Your task to perform on an android device: see sites visited before in the chrome app Image 0: 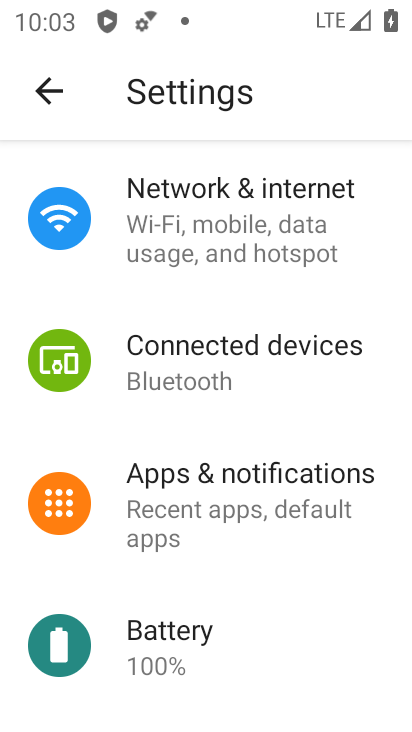
Step 0: press home button
Your task to perform on an android device: see sites visited before in the chrome app Image 1: 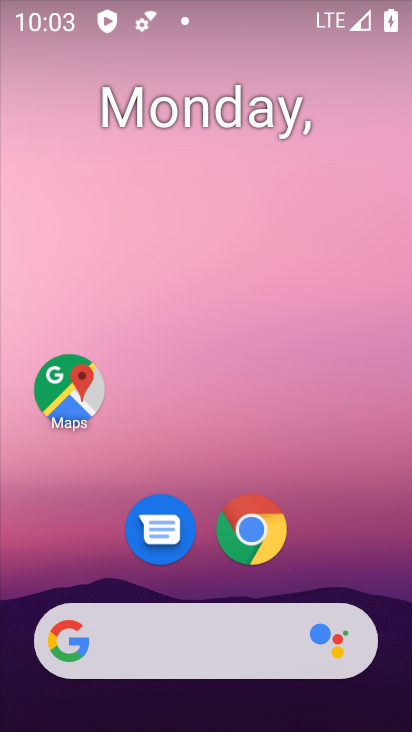
Step 1: click (230, 527)
Your task to perform on an android device: see sites visited before in the chrome app Image 2: 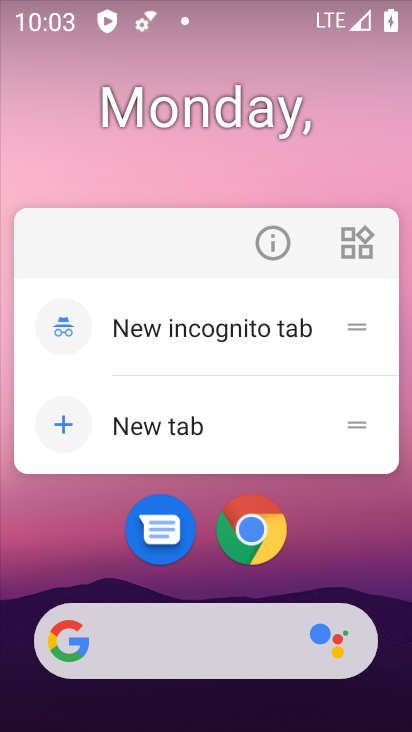
Step 2: click (242, 531)
Your task to perform on an android device: see sites visited before in the chrome app Image 3: 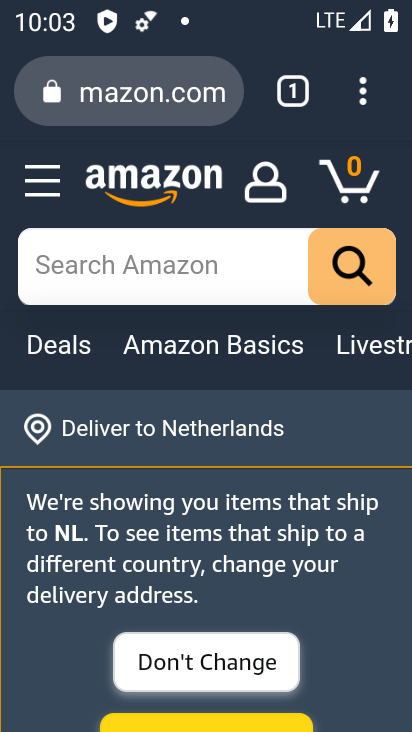
Step 3: click (366, 95)
Your task to perform on an android device: see sites visited before in the chrome app Image 4: 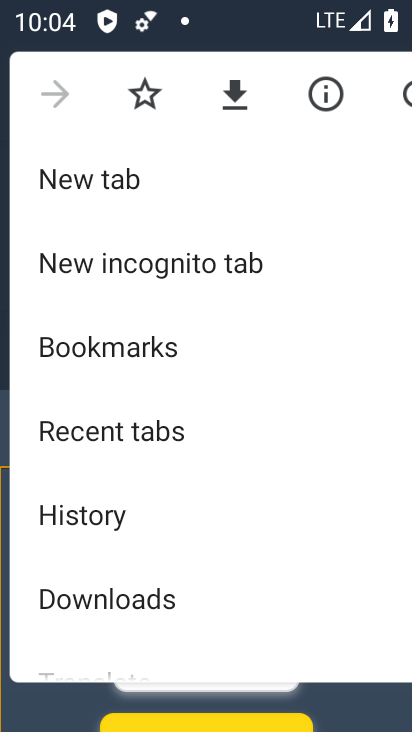
Step 4: click (82, 530)
Your task to perform on an android device: see sites visited before in the chrome app Image 5: 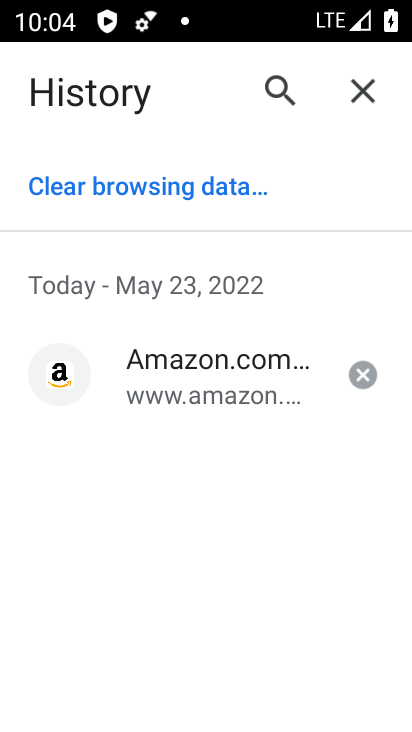
Step 5: task complete